Your task to perform on an android device: change the clock display to show seconds Image 0: 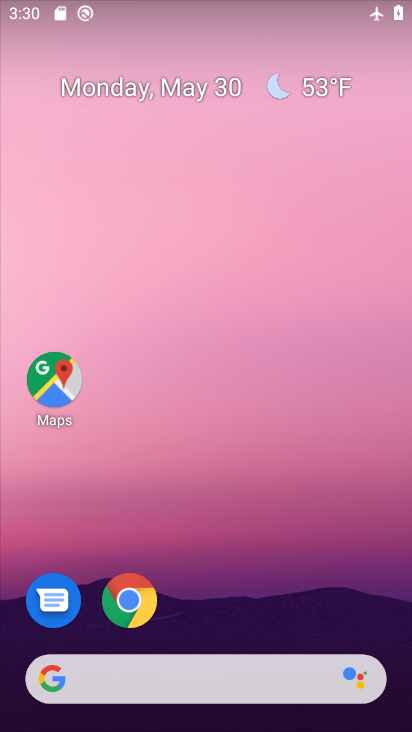
Step 0: drag from (338, 574) to (391, 217)
Your task to perform on an android device: change the clock display to show seconds Image 1: 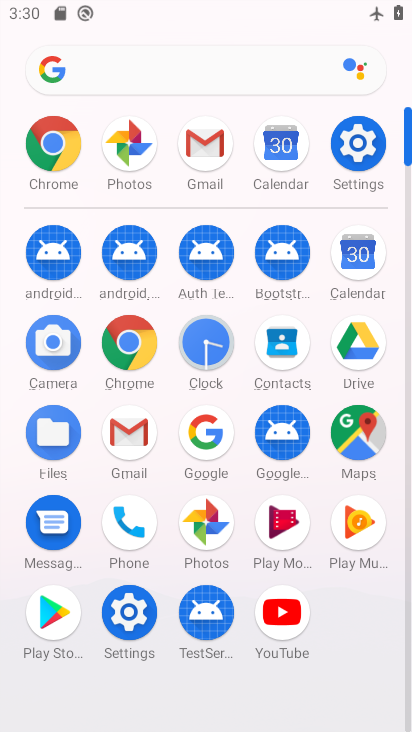
Step 1: click (239, 347)
Your task to perform on an android device: change the clock display to show seconds Image 2: 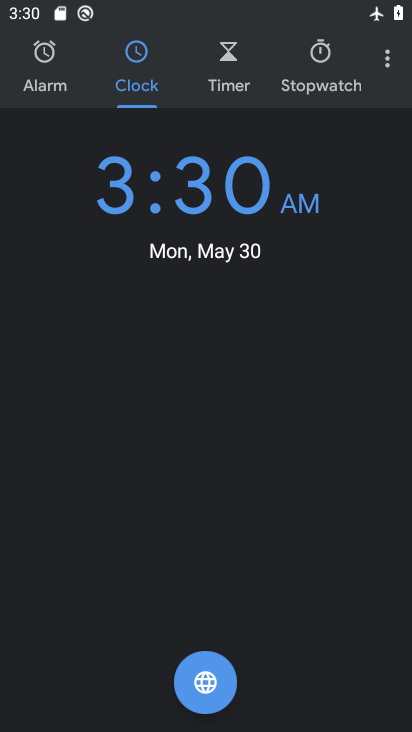
Step 2: click (385, 52)
Your task to perform on an android device: change the clock display to show seconds Image 3: 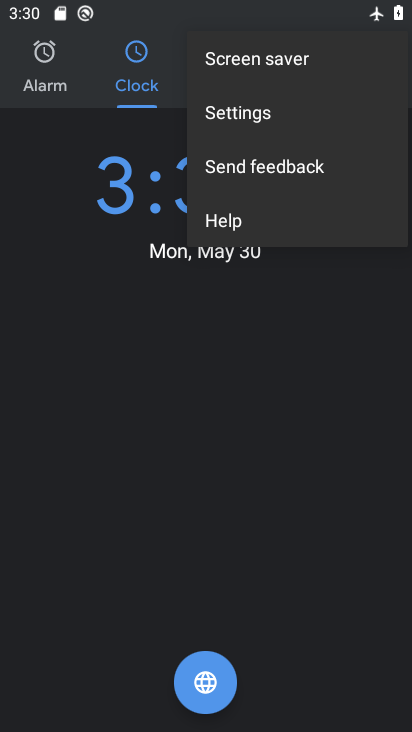
Step 3: click (191, 127)
Your task to perform on an android device: change the clock display to show seconds Image 4: 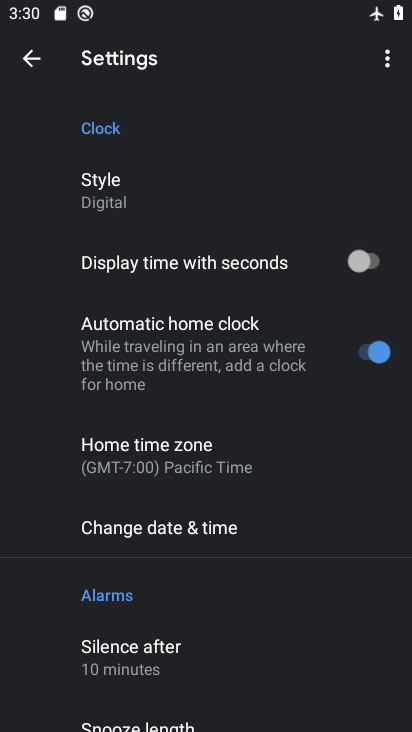
Step 4: click (359, 262)
Your task to perform on an android device: change the clock display to show seconds Image 5: 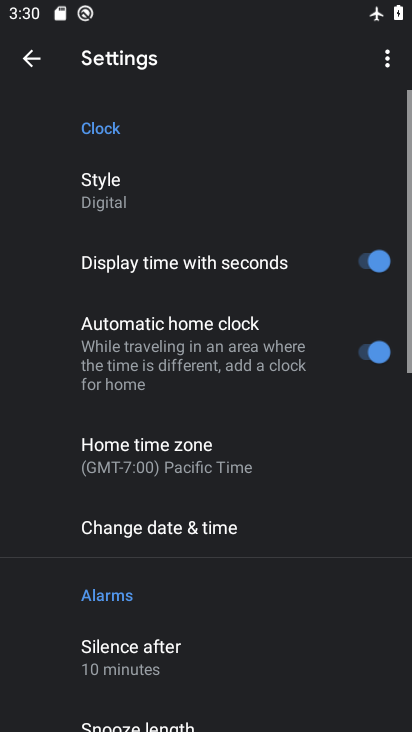
Step 5: task complete